Your task to perform on an android device: open app "Life360: Find Family & Friends" (install if not already installed) Image 0: 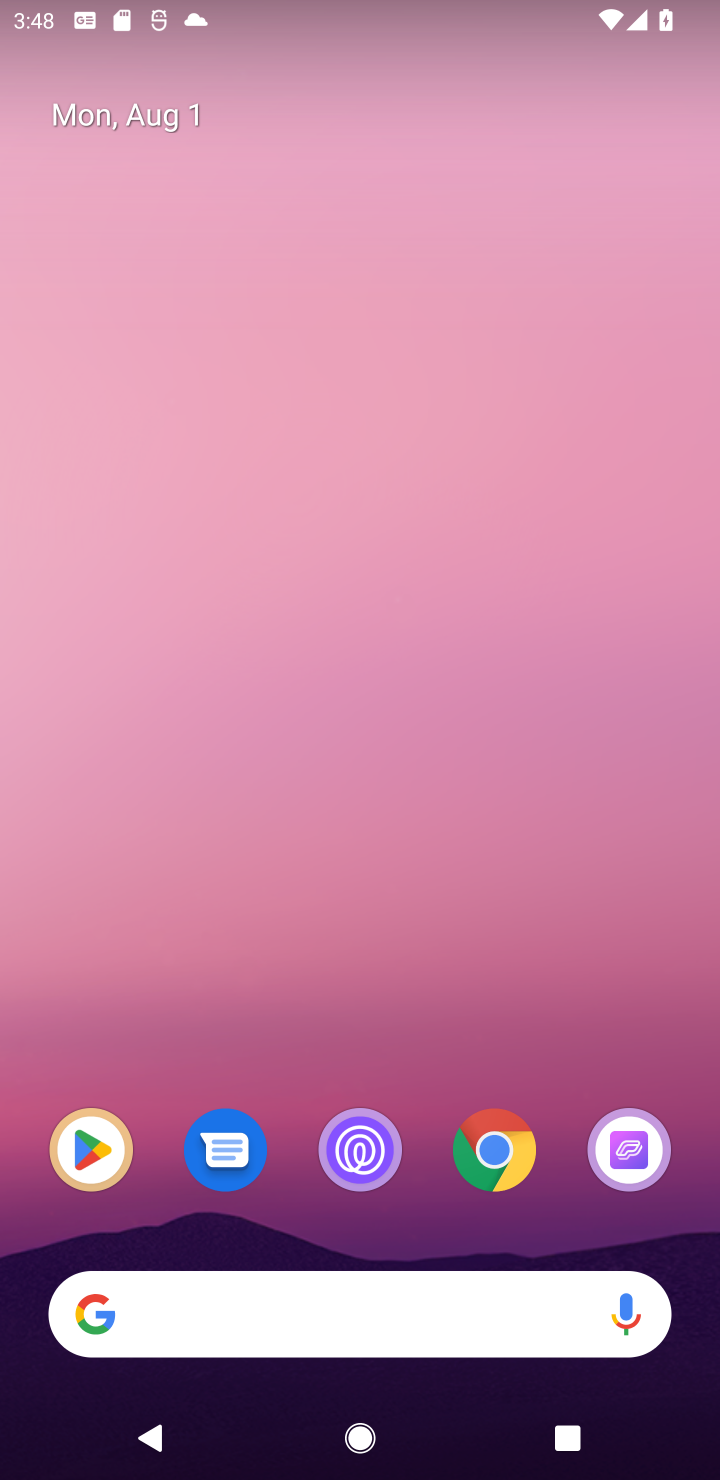
Step 0: click (351, 1148)
Your task to perform on an android device: open app "Life360: Find Family & Friends" (install if not already installed) Image 1: 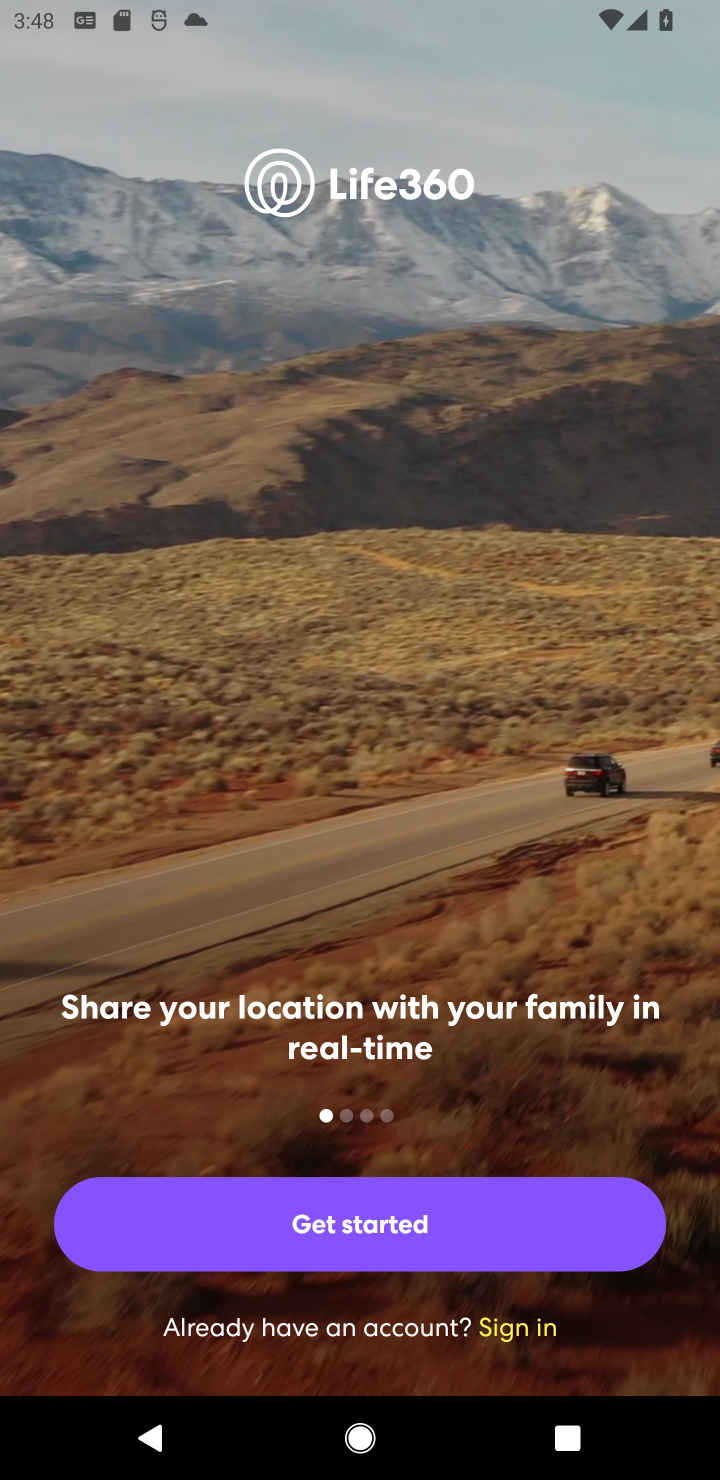
Step 1: task complete